Your task to perform on an android device: install app "Paramount+ | Peak Streaming" Image 0: 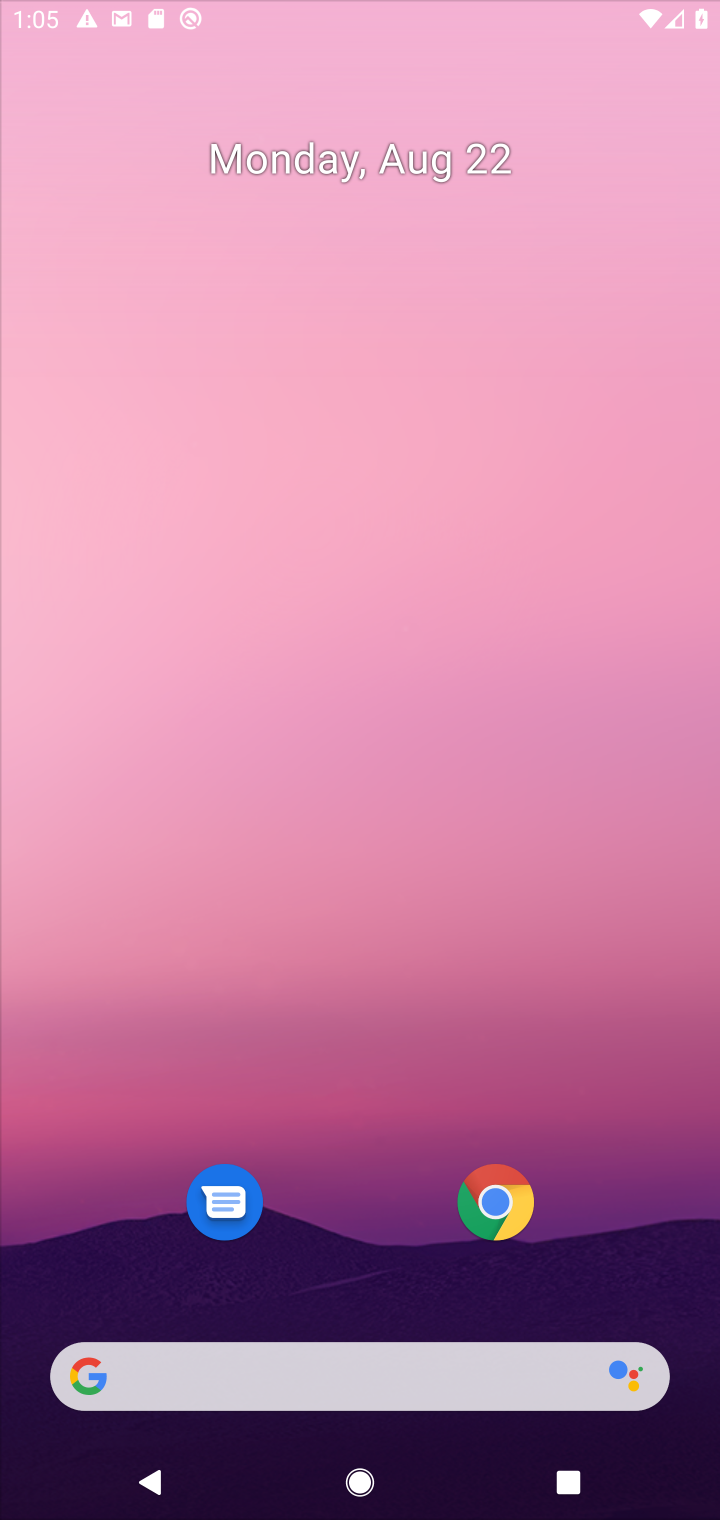
Step 0: press home button
Your task to perform on an android device: install app "Paramount+ | Peak Streaming" Image 1: 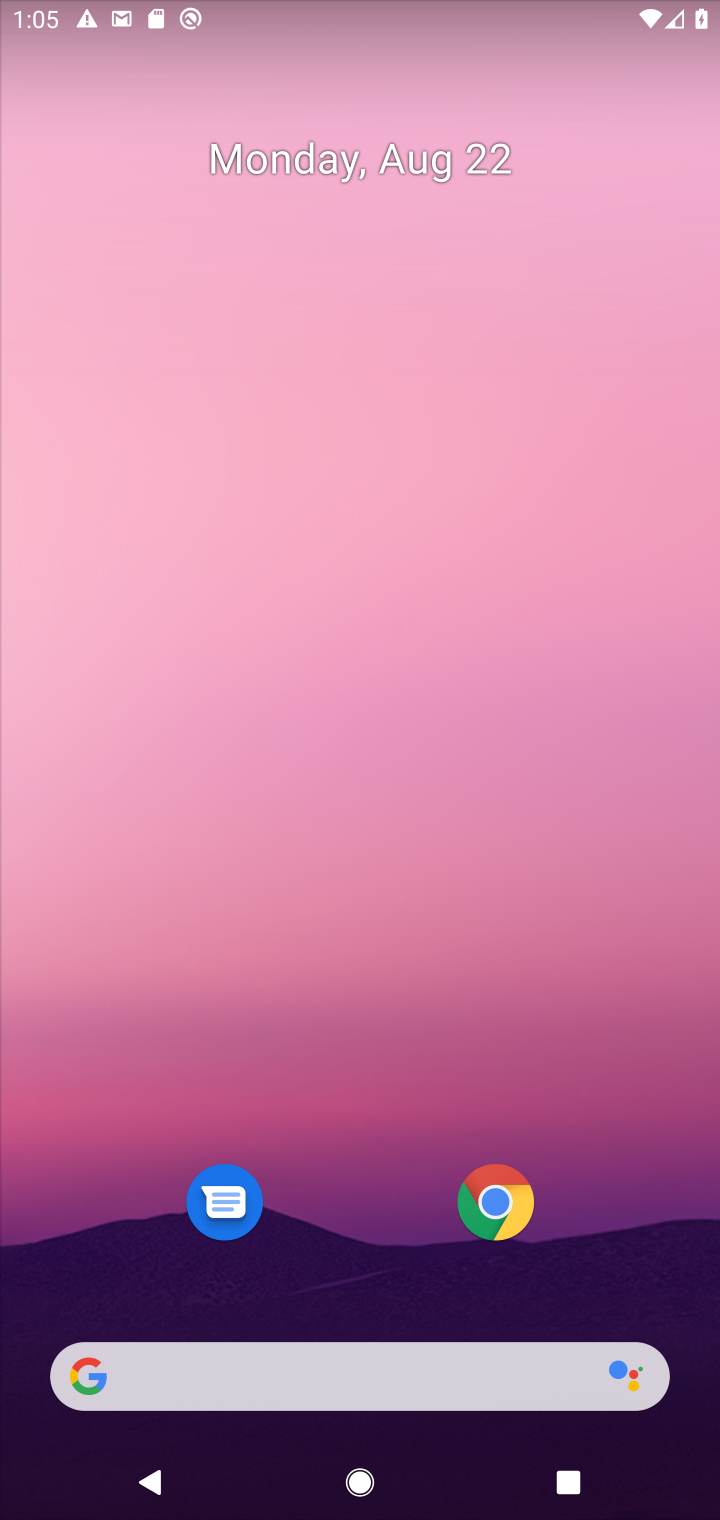
Step 1: drag from (348, 1321) to (348, 187)
Your task to perform on an android device: install app "Paramount+ | Peak Streaming" Image 2: 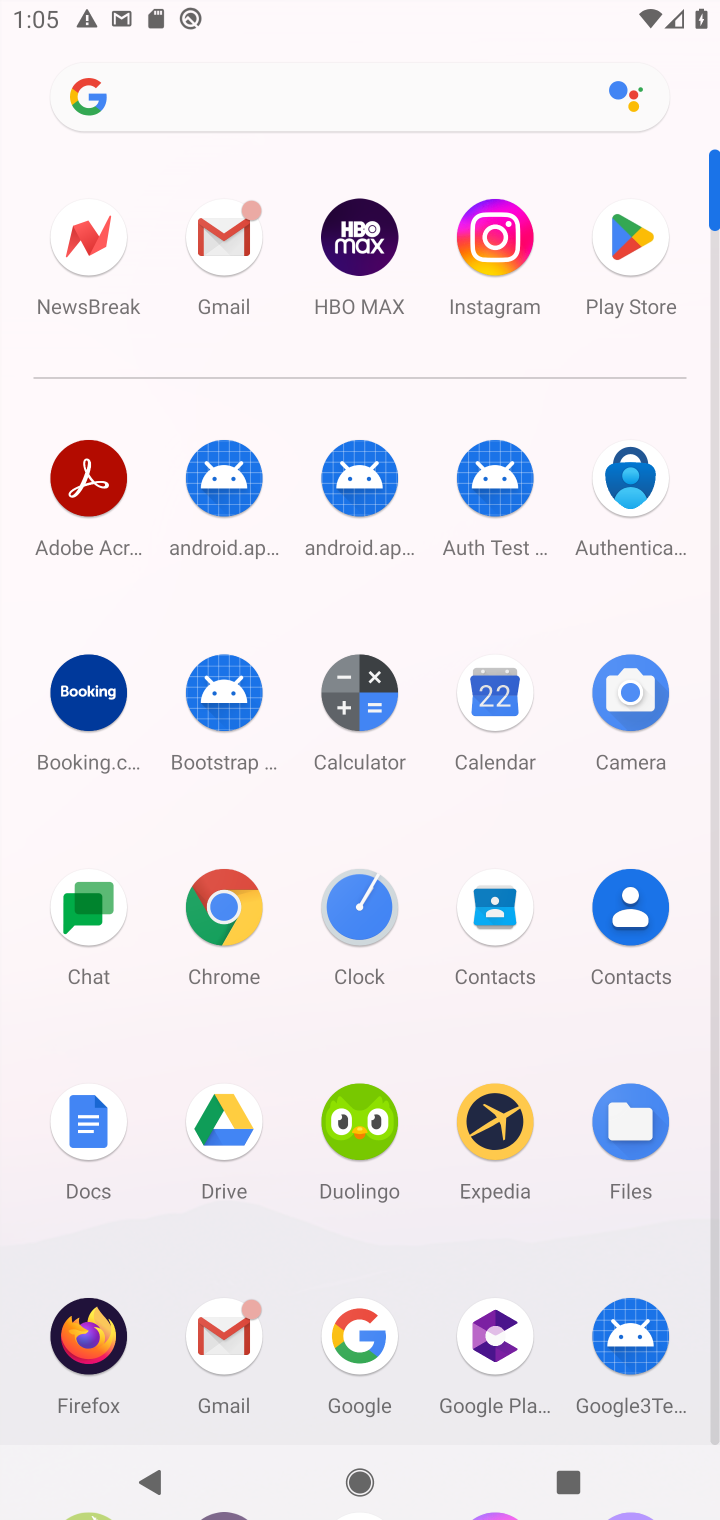
Step 2: click (626, 234)
Your task to perform on an android device: install app "Paramount+ | Peak Streaming" Image 3: 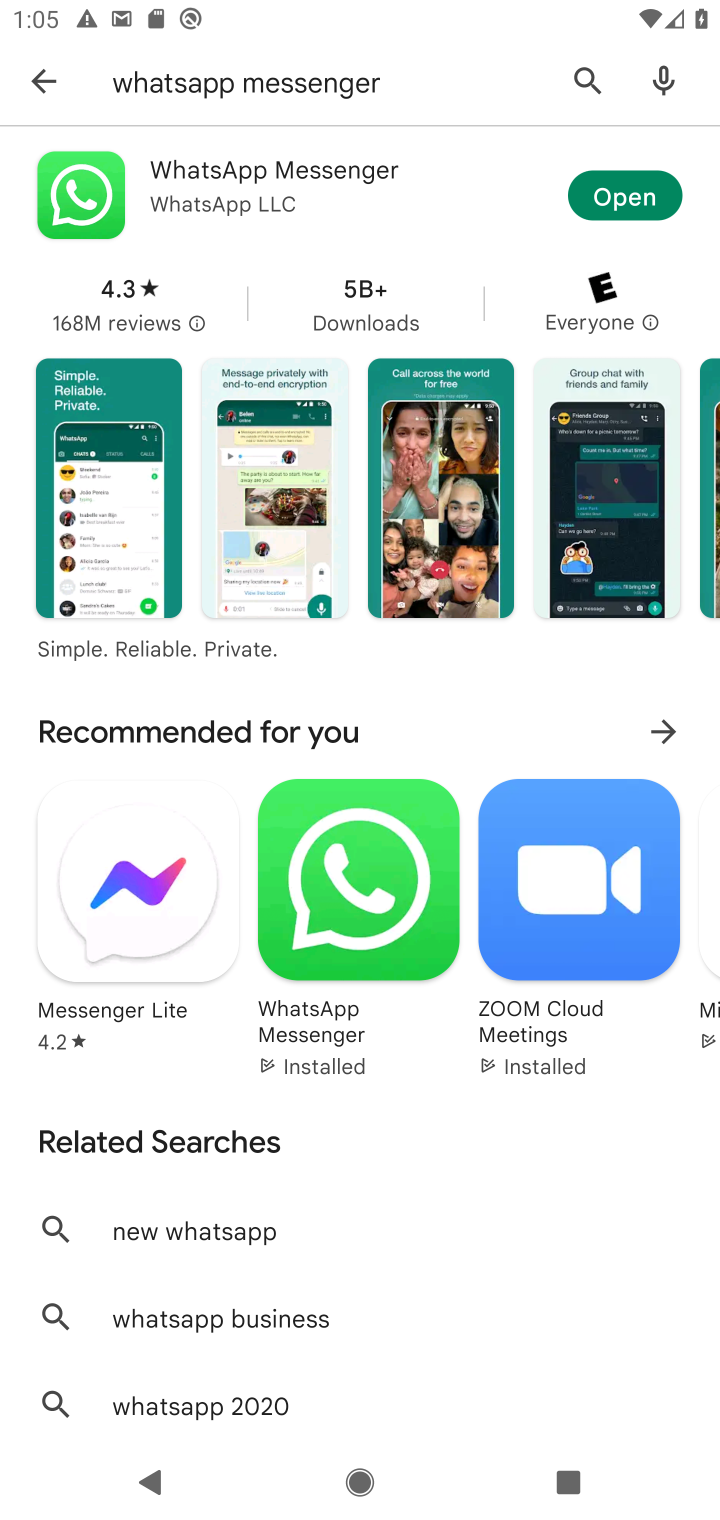
Step 3: click (579, 74)
Your task to perform on an android device: install app "Paramount+ | Peak Streaming" Image 4: 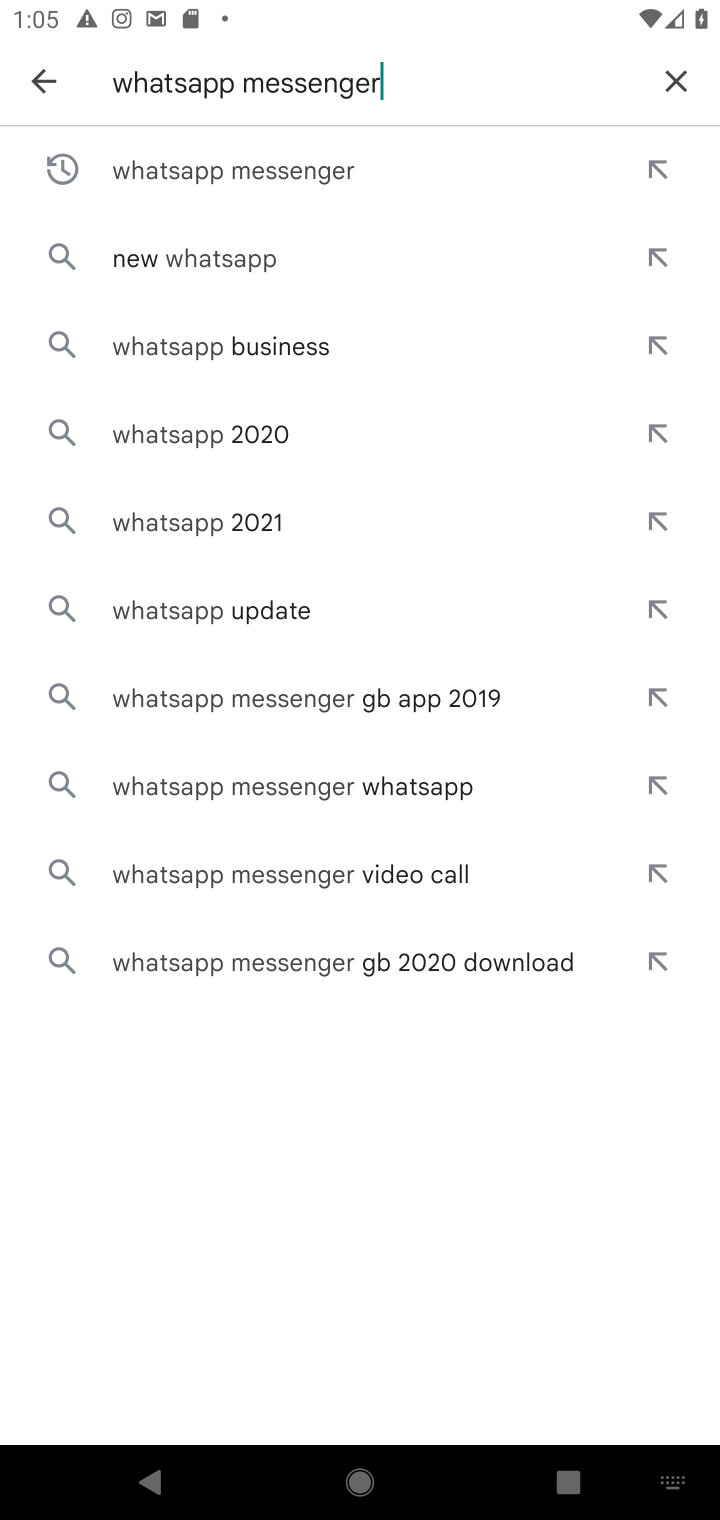
Step 4: click (681, 86)
Your task to perform on an android device: install app "Paramount+ | Peak Streaming" Image 5: 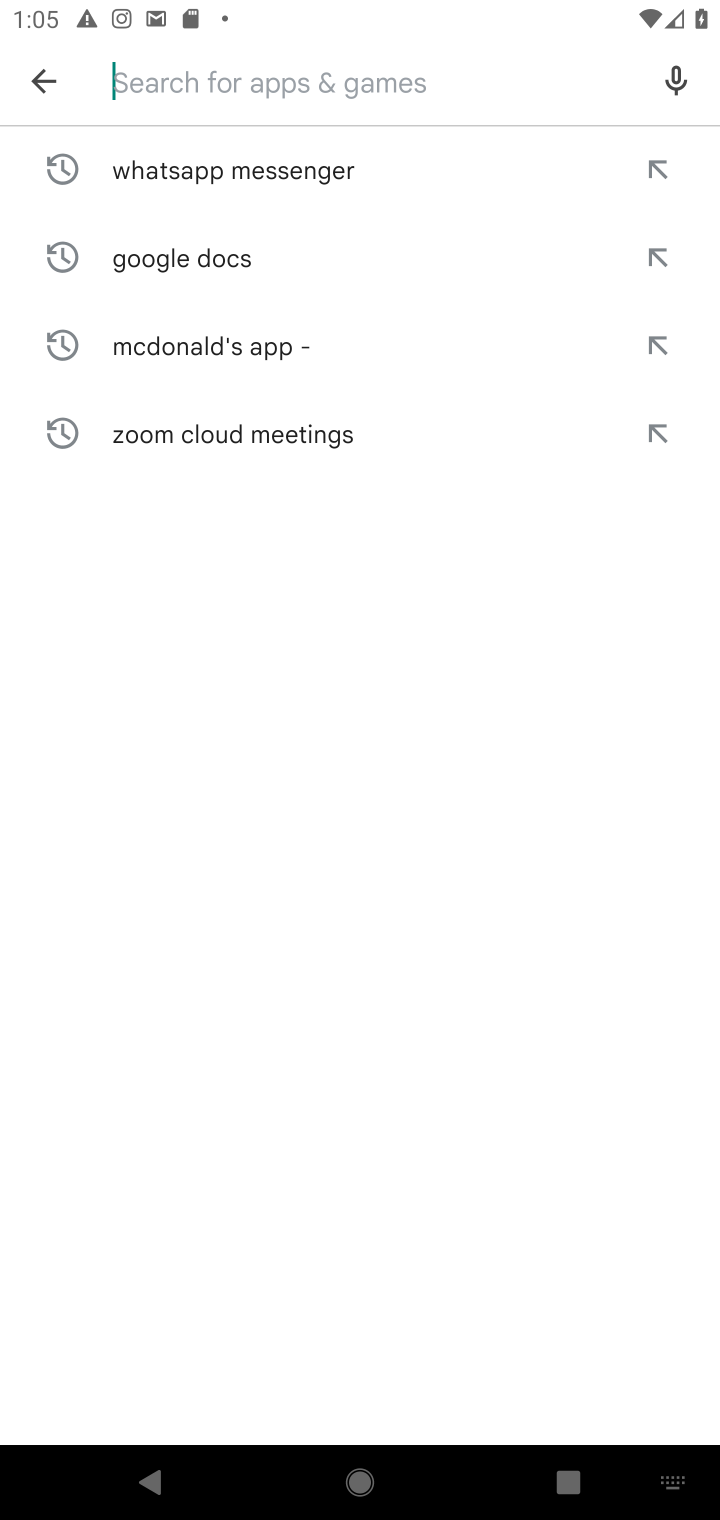
Step 5: type "Paramount+ | Peak Streaming"
Your task to perform on an android device: install app "Paramount+ | Peak Streaming" Image 6: 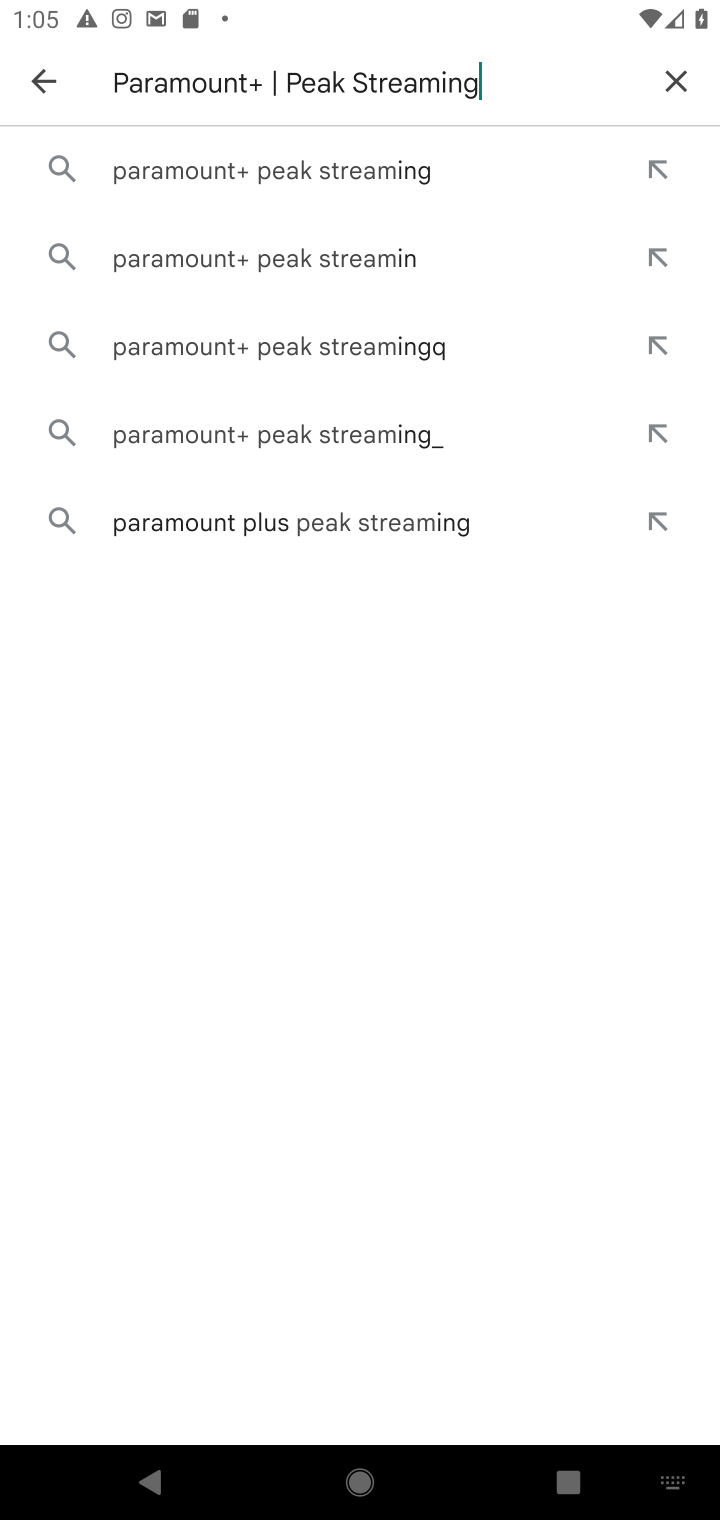
Step 6: type ""
Your task to perform on an android device: install app "Paramount+ | Peak Streaming" Image 7: 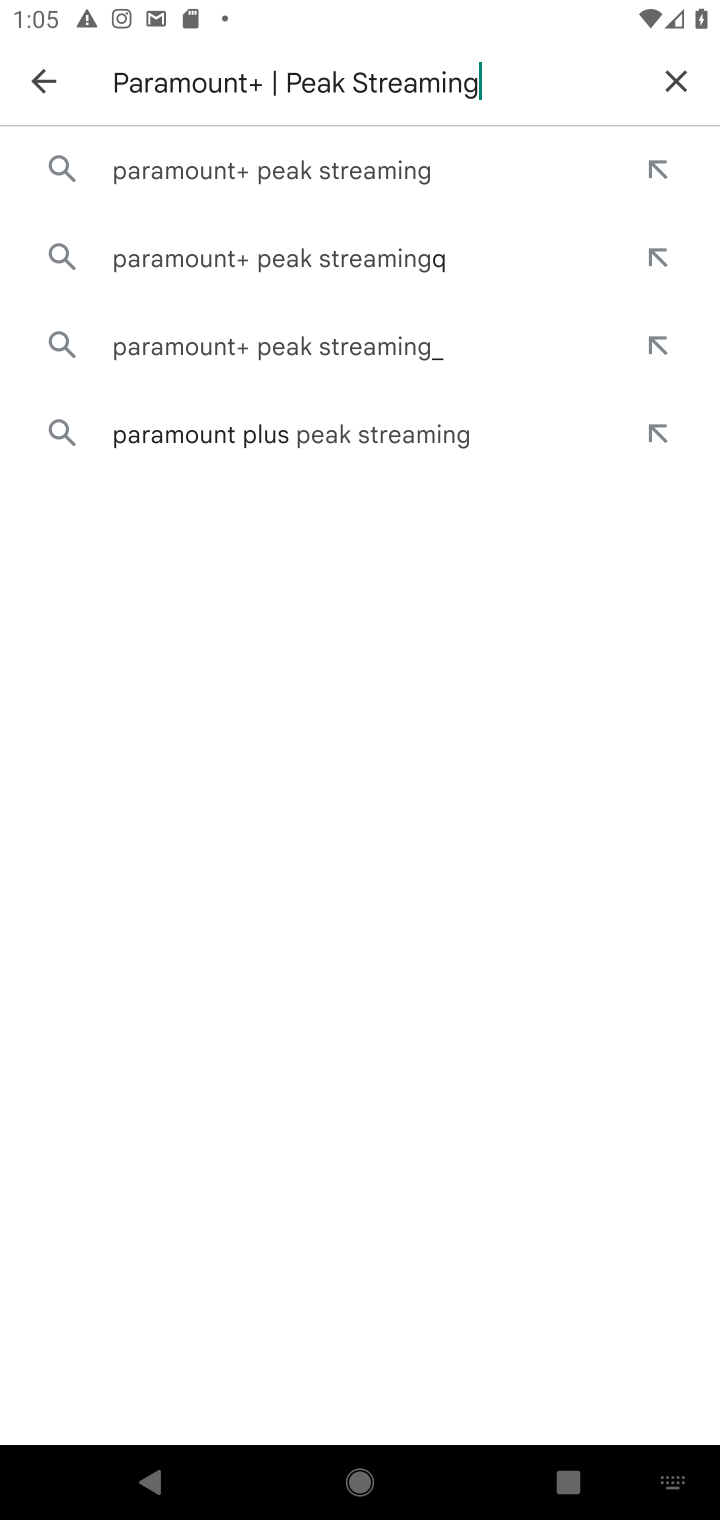
Step 7: click (344, 171)
Your task to perform on an android device: install app "Paramount+ | Peak Streaming" Image 8: 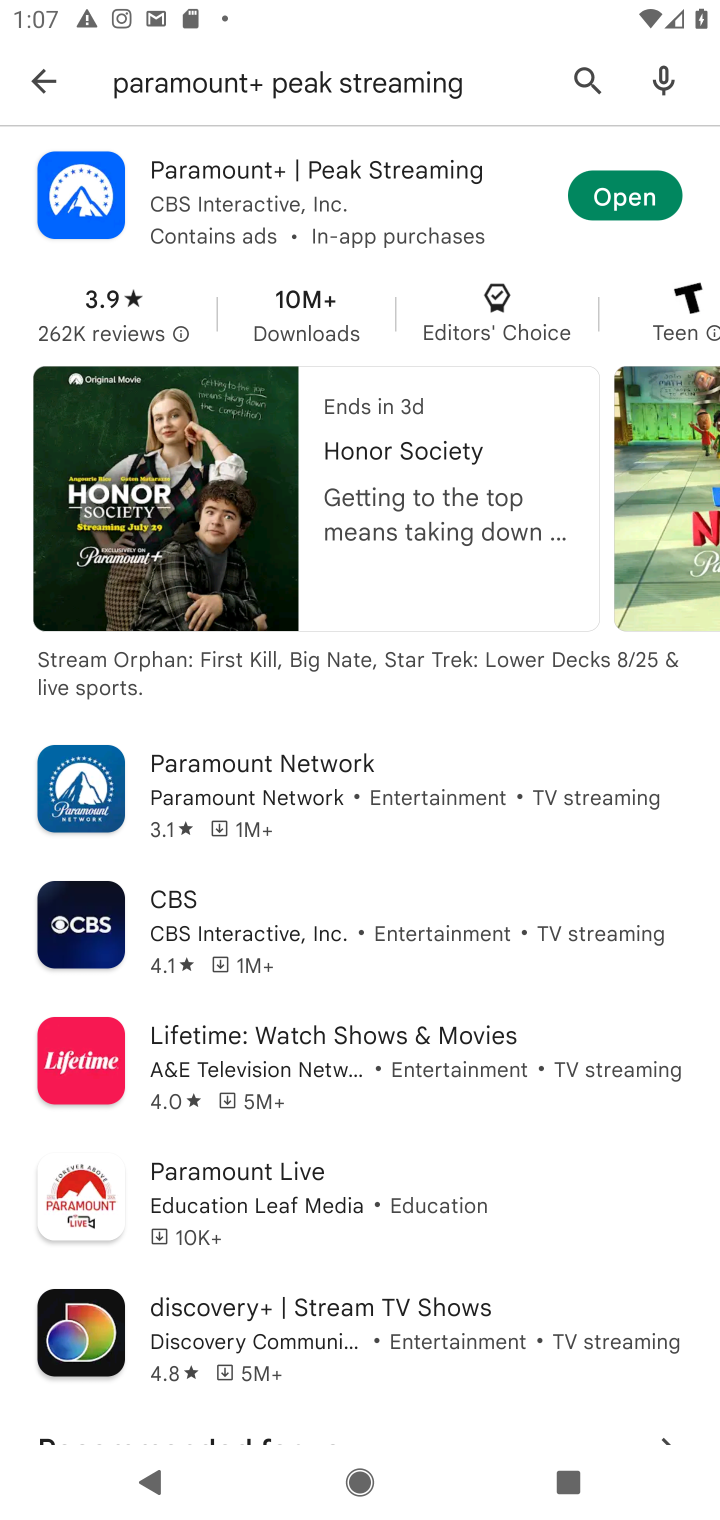
Step 8: task complete